Your task to perform on an android device: Go to battery settings Image 0: 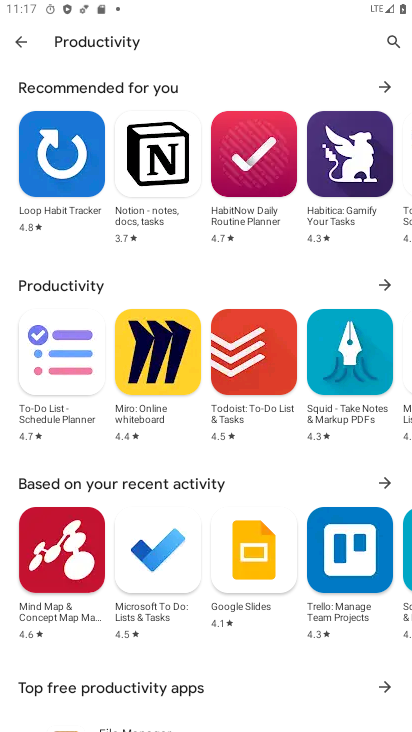
Step 0: press home button
Your task to perform on an android device: Go to battery settings Image 1: 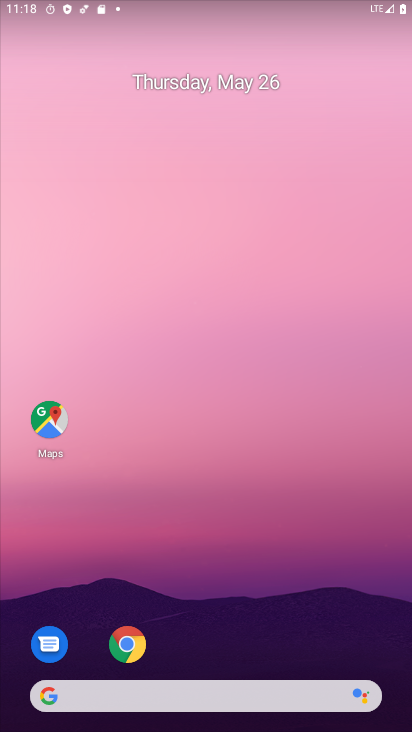
Step 1: drag from (115, 730) to (175, 50)
Your task to perform on an android device: Go to battery settings Image 2: 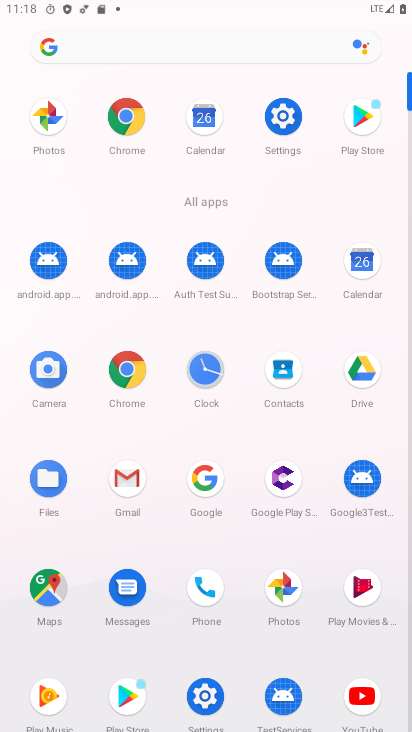
Step 2: click (280, 119)
Your task to perform on an android device: Go to battery settings Image 3: 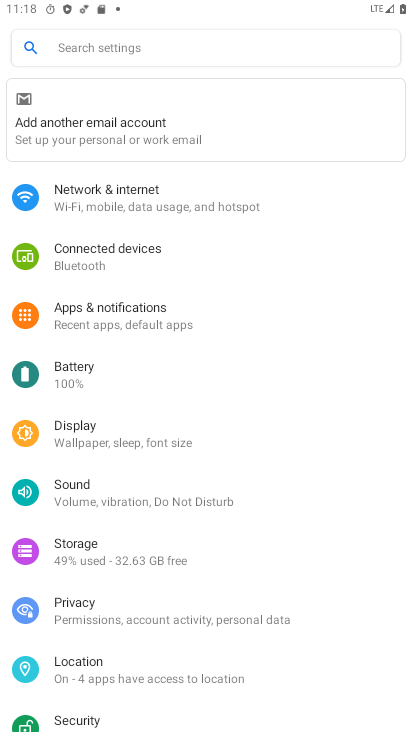
Step 3: click (84, 381)
Your task to perform on an android device: Go to battery settings Image 4: 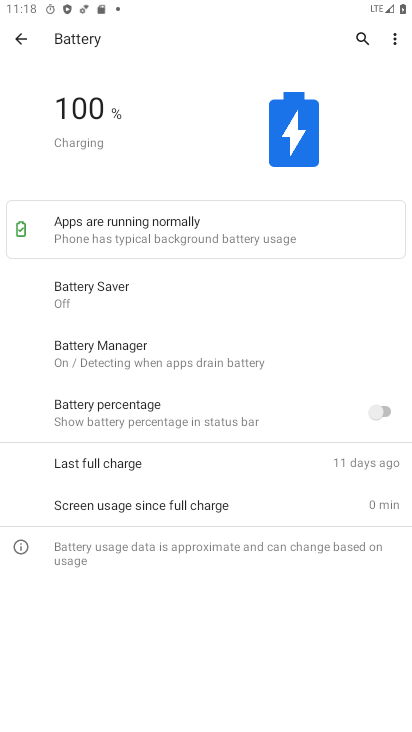
Step 4: task complete